Your task to perform on an android device: turn off data saver in the chrome app Image 0: 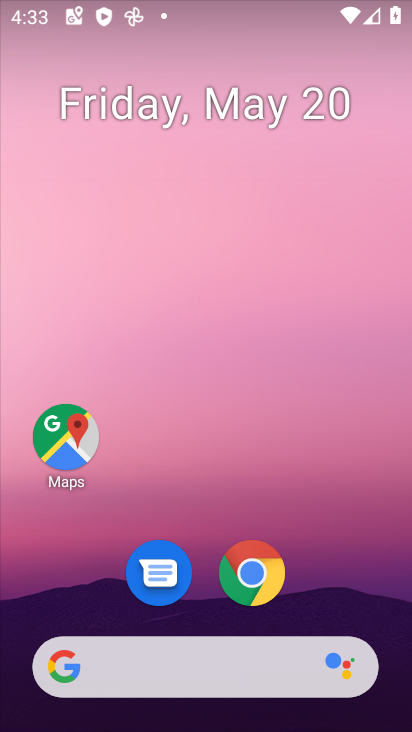
Step 0: click (255, 575)
Your task to perform on an android device: turn off data saver in the chrome app Image 1: 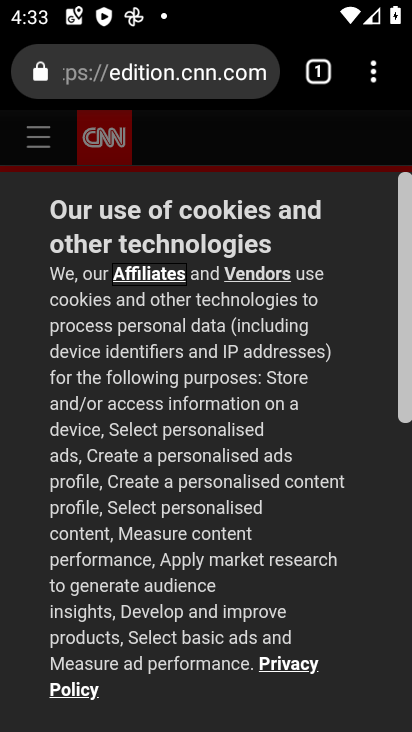
Step 1: click (374, 81)
Your task to perform on an android device: turn off data saver in the chrome app Image 2: 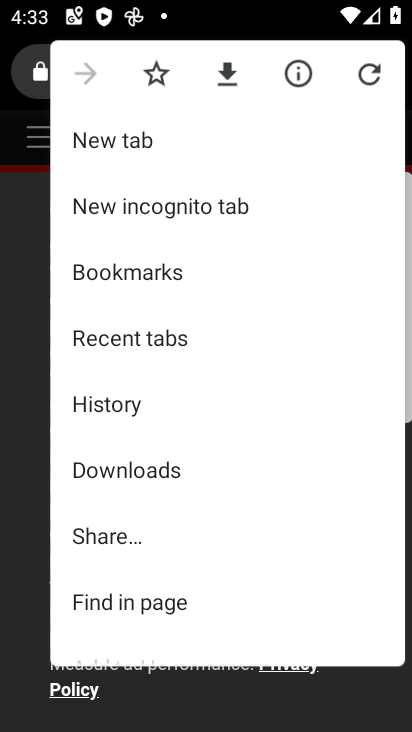
Step 2: drag from (228, 555) to (287, 162)
Your task to perform on an android device: turn off data saver in the chrome app Image 3: 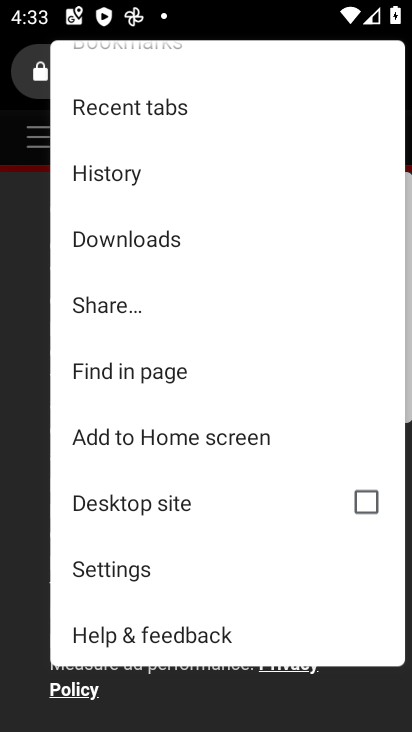
Step 3: click (117, 566)
Your task to perform on an android device: turn off data saver in the chrome app Image 4: 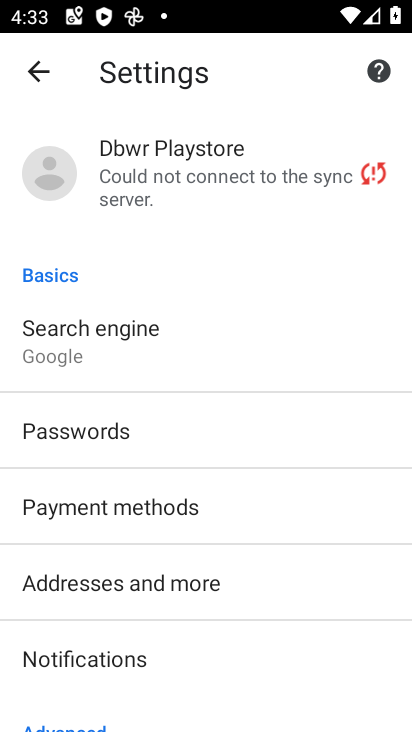
Step 4: drag from (260, 654) to (208, 171)
Your task to perform on an android device: turn off data saver in the chrome app Image 5: 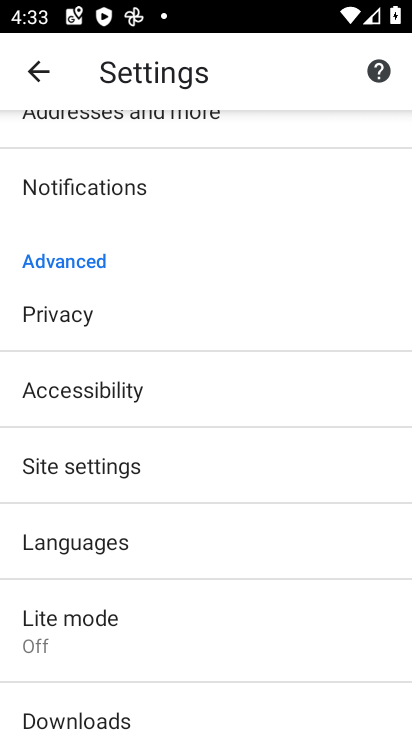
Step 5: click (38, 617)
Your task to perform on an android device: turn off data saver in the chrome app Image 6: 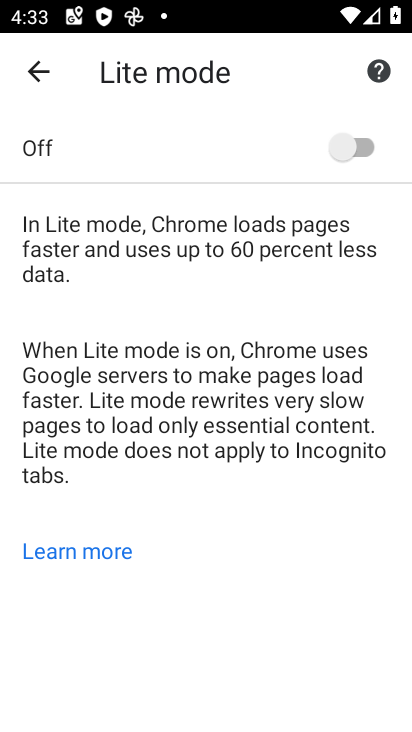
Step 6: task complete